Your task to perform on an android device: Search for seafood restaurants on Google Maps Image 0: 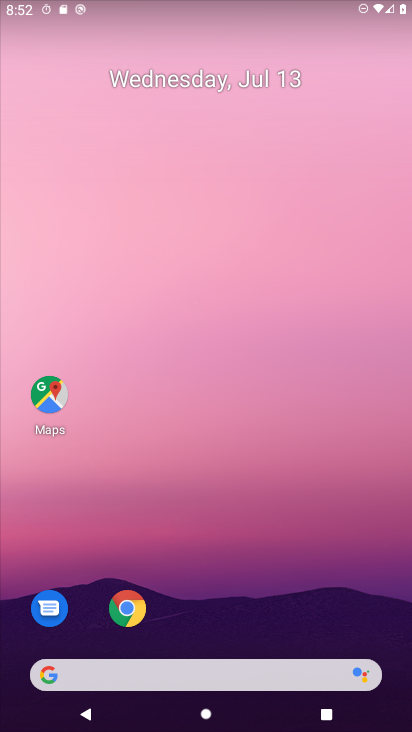
Step 0: drag from (256, 369) to (258, 307)
Your task to perform on an android device: Search for seafood restaurants on Google Maps Image 1: 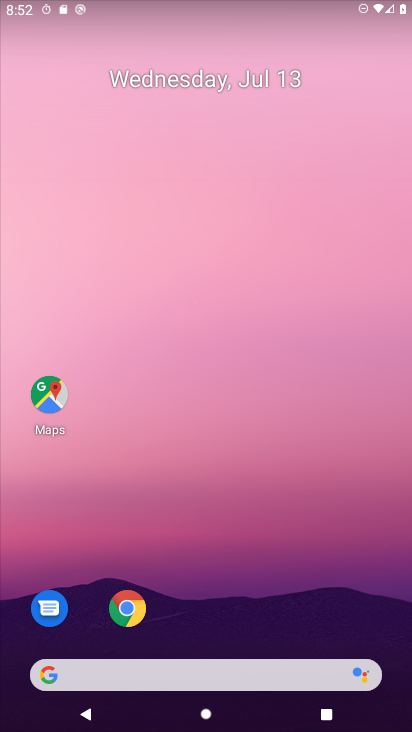
Step 1: drag from (263, 643) to (199, 136)
Your task to perform on an android device: Search for seafood restaurants on Google Maps Image 2: 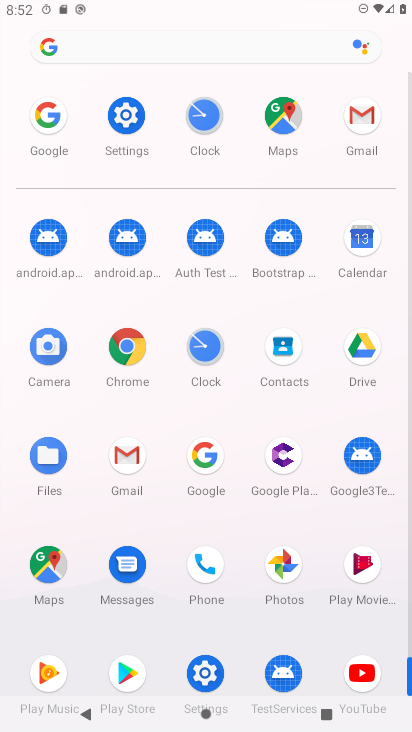
Step 2: drag from (266, 660) to (255, 210)
Your task to perform on an android device: Search for seafood restaurants on Google Maps Image 3: 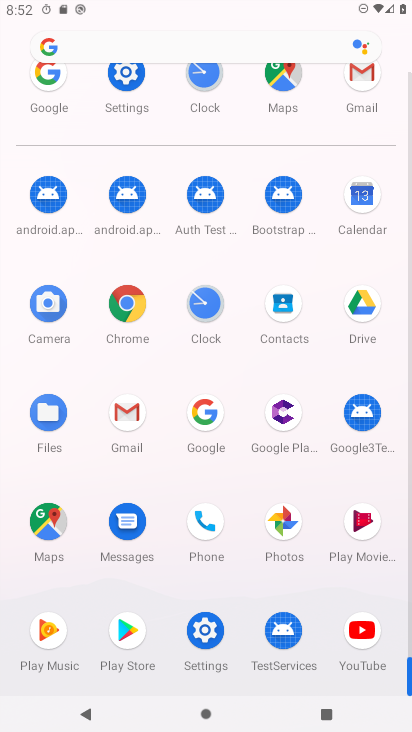
Step 3: click (55, 520)
Your task to perform on an android device: Search for seafood restaurants on Google Maps Image 4: 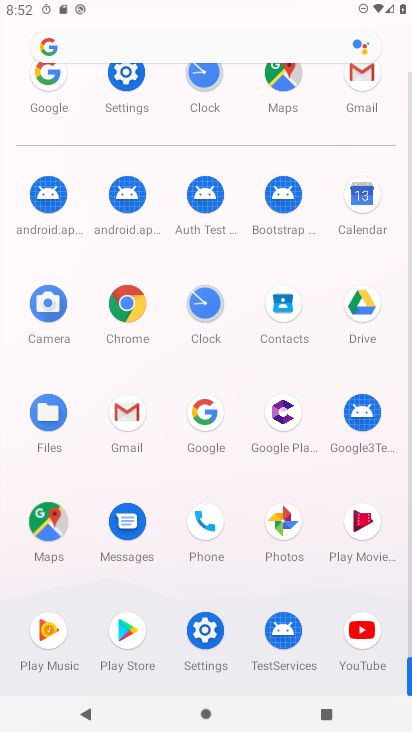
Step 4: click (55, 521)
Your task to perform on an android device: Search for seafood restaurants on Google Maps Image 5: 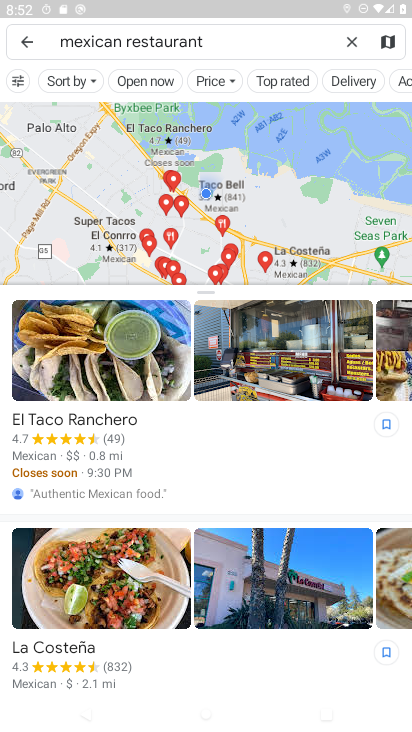
Step 5: click (352, 40)
Your task to perform on an android device: Search for seafood restaurants on Google Maps Image 6: 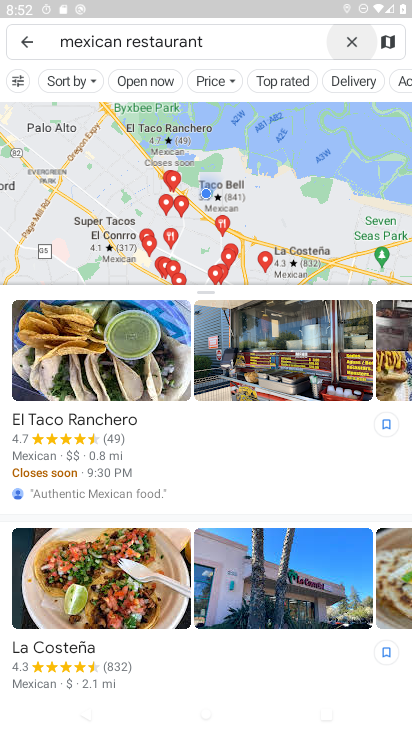
Step 6: click (353, 40)
Your task to perform on an android device: Search for seafood restaurants on Google Maps Image 7: 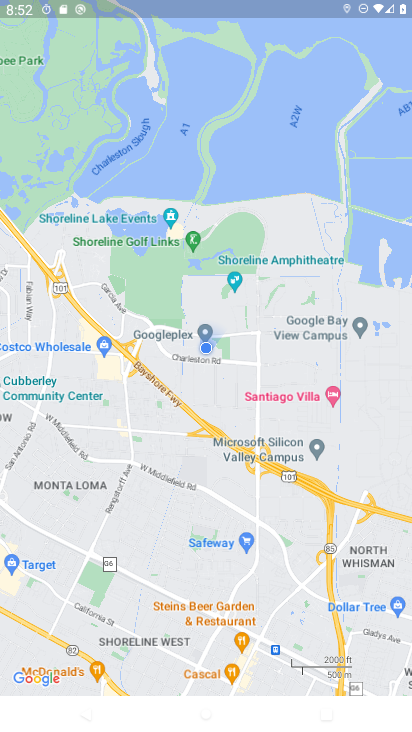
Step 7: click (87, 32)
Your task to perform on an android device: Search for seafood restaurants on Google Maps Image 8: 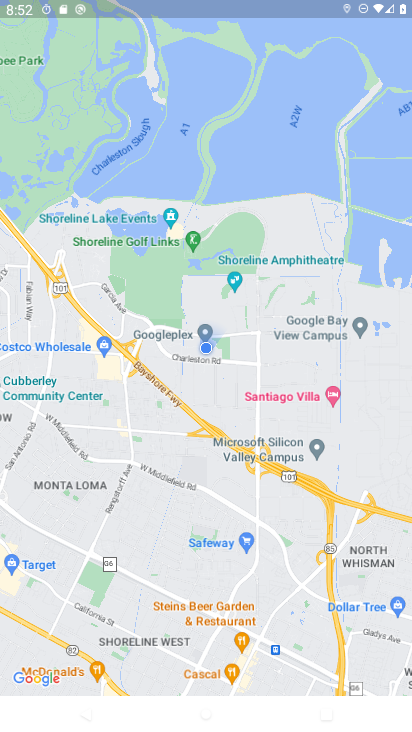
Step 8: drag from (170, 131) to (151, 427)
Your task to perform on an android device: Search for seafood restaurants on Google Maps Image 9: 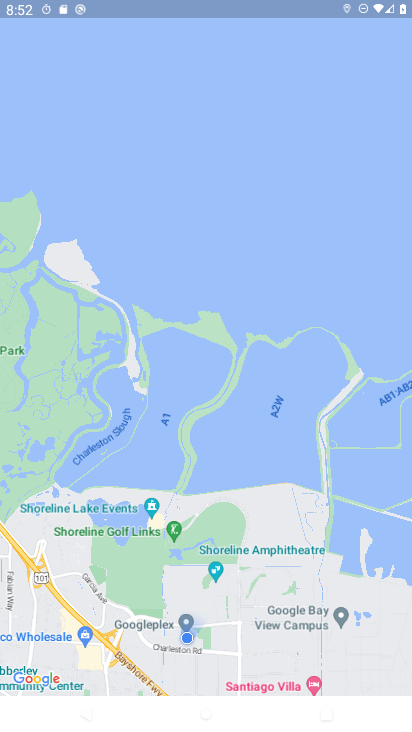
Step 9: drag from (108, 114) to (112, 344)
Your task to perform on an android device: Search for seafood restaurants on Google Maps Image 10: 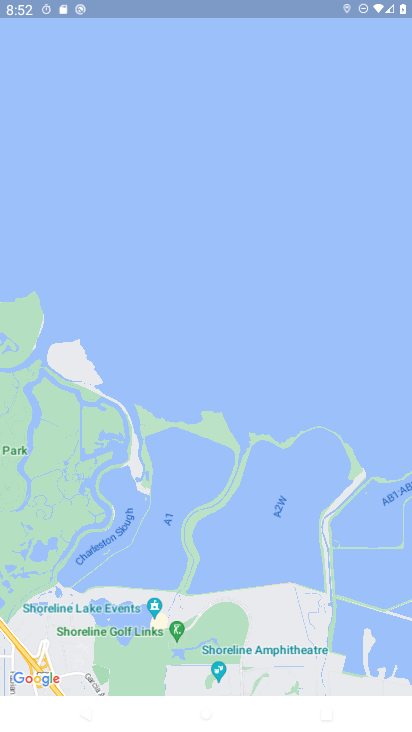
Step 10: drag from (115, 81) to (115, 487)
Your task to perform on an android device: Search for seafood restaurants on Google Maps Image 11: 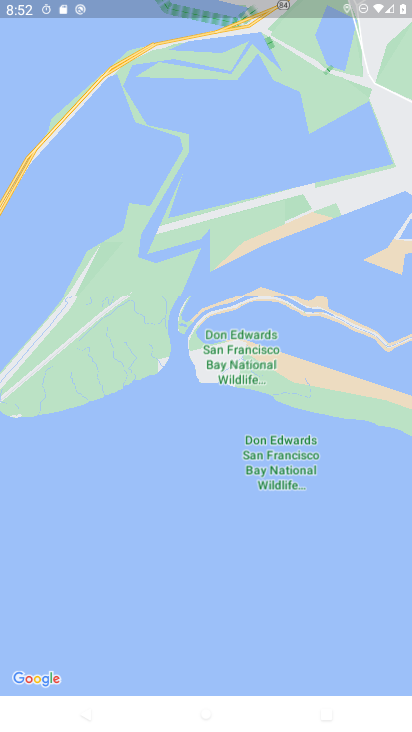
Step 11: drag from (157, 132) to (110, 461)
Your task to perform on an android device: Search for seafood restaurants on Google Maps Image 12: 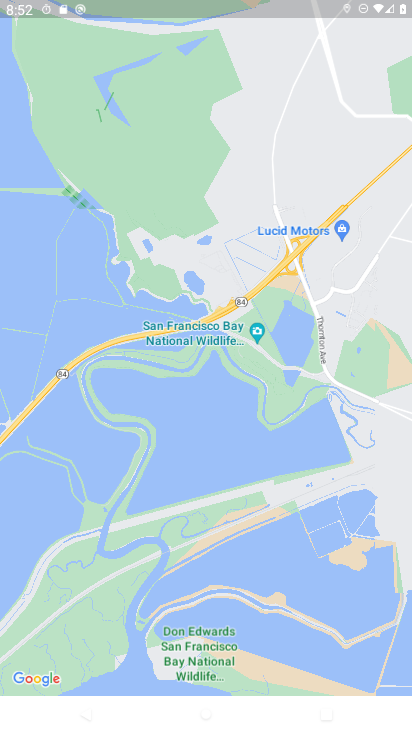
Step 12: drag from (112, 69) to (131, 514)
Your task to perform on an android device: Search for seafood restaurants on Google Maps Image 13: 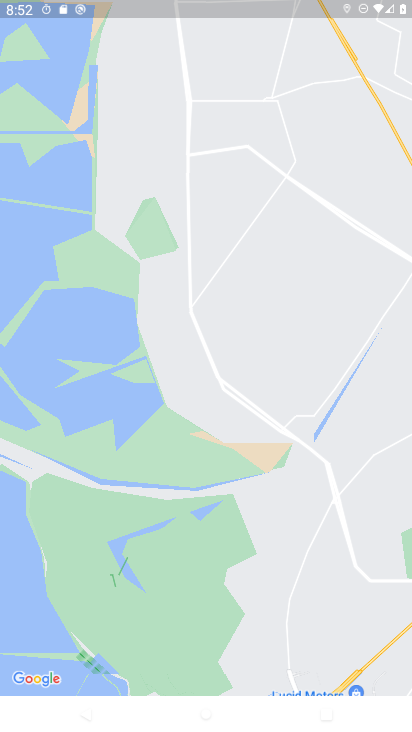
Step 13: drag from (115, 85) to (123, 565)
Your task to perform on an android device: Search for seafood restaurants on Google Maps Image 14: 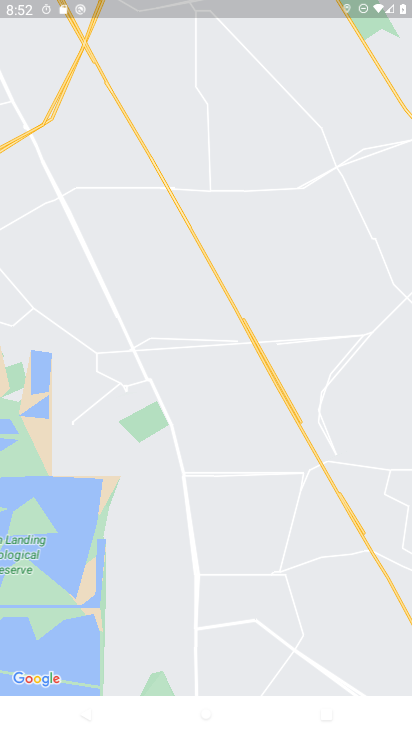
Step 14: drag from (192, 138) to (206, 604)
Your task to perform on an android device: Search for seafood restaurants on Google Maps Image 15: 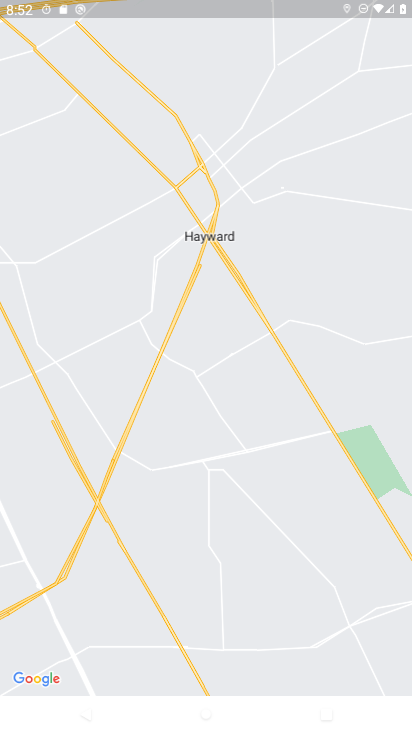
Step 15: drag from (215, 173) to (152, 224)
Your task to perform on an android device: Search for seafood restaurants on Google Maps Image 16: 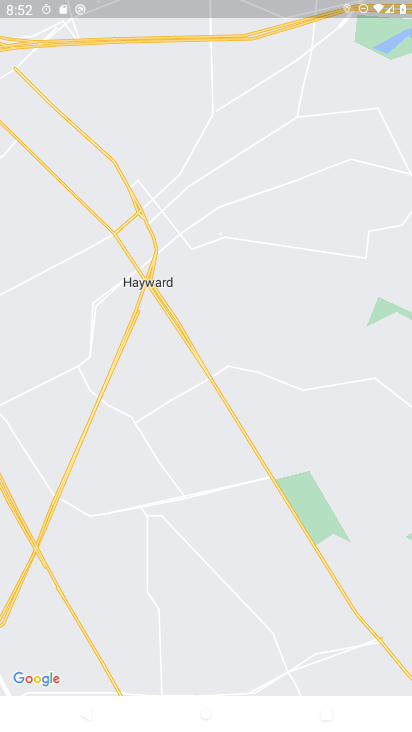
Step 16: drag from (249, 489) to (210, 138)
Your task to perform on an android device: Search for seafood restaurants on Google Maps Image 17: 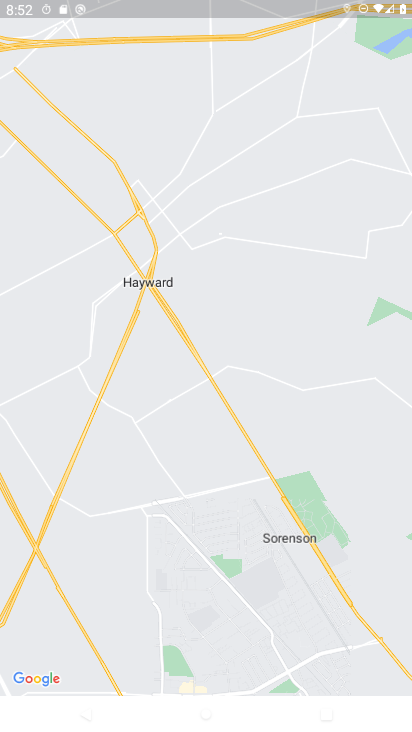
Step 17: drag from (217, 121) to (167, 447)
Your task to perform on an android device: Search for seafood restaurants on Google Maps Image 18: 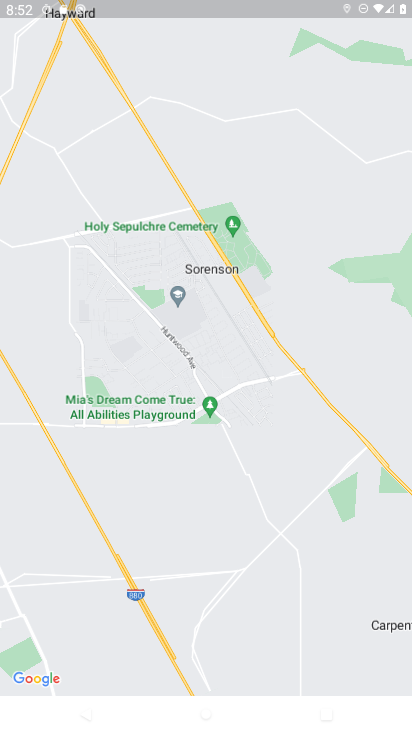
Step 18: drag from (110, 92) to (255, 235)
Your task to perform on an android device: Search for seafood restaurants on Google Maps Image 19: 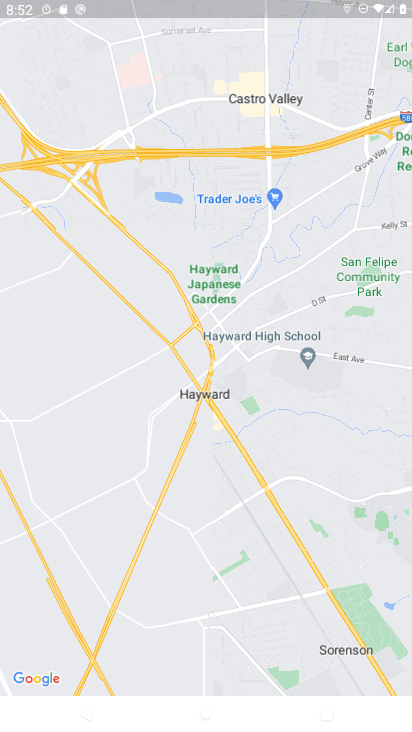
Step 19: click (97, 204)
Your task to perform on an android device: Search for seafood restaurants on Google Maps Image 20: 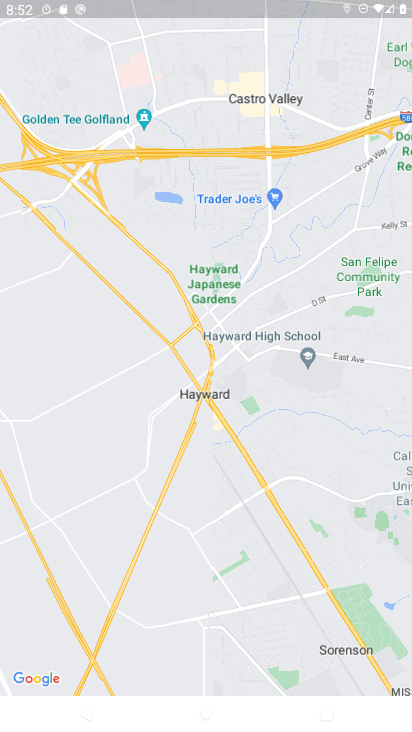
Step 20: click (106, 165)
Your task to perform on an android device: Search for seafood restaurants on Google Maps Image 21: 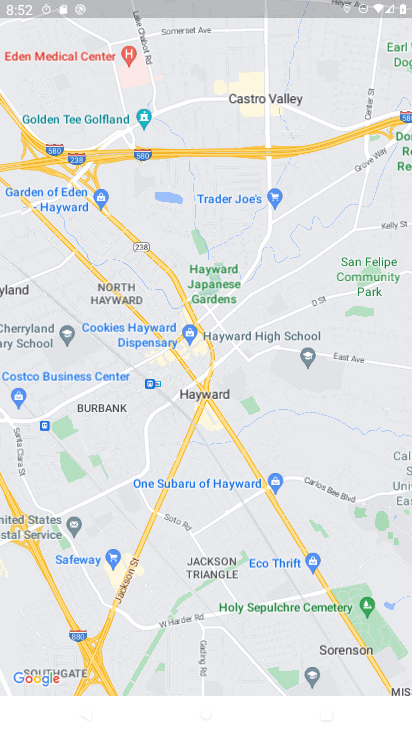
Step 21: click (110, 57)
Your task to perform on an android device: Search for seafood restaurants on Google Maps Image 22: 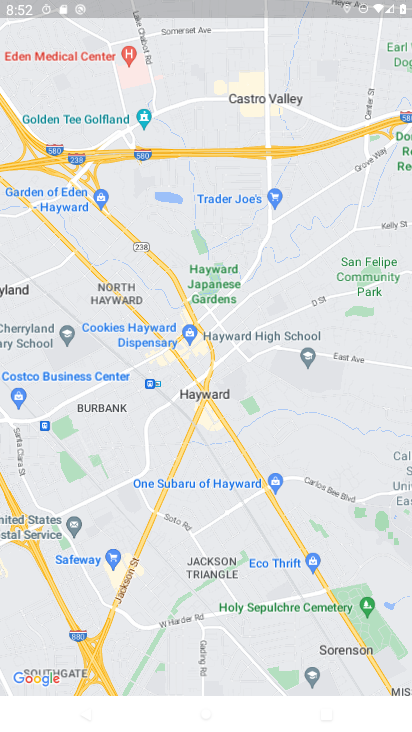
Step 22: click (112, 56)
Your task to perform on an android device: Search for seafood restaurants on Google Maps Image 23: 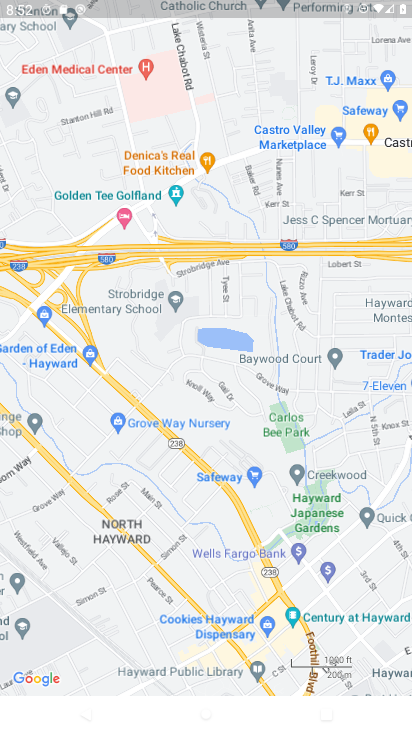
Step 23: click (94, 89)
Your task to perform on an android device: Search for seafood restaurants on Google Maps Image 24: 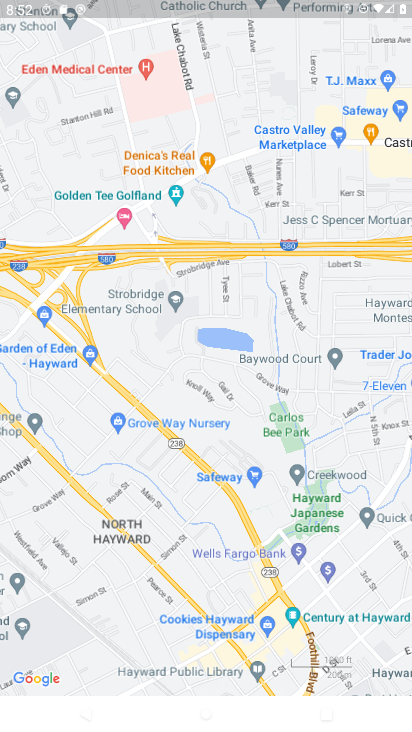
Step 24: click (101, 86)
Your task to perform on an android device: Search for seafood restaurants on Google Maps Image 25: 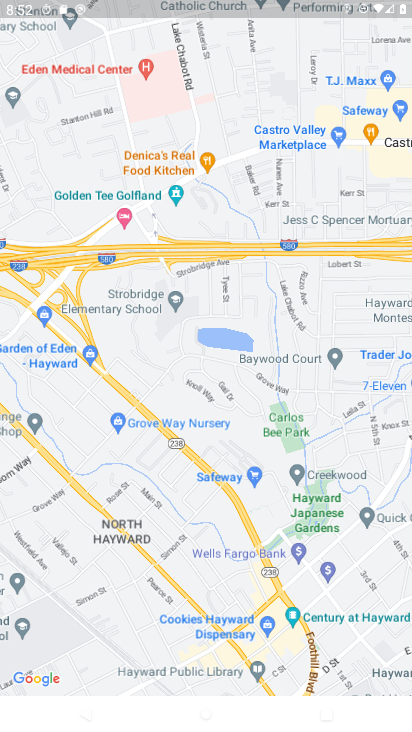
Step 25: click (124, 60)
Your task to perform on an android device: Search for seafood restaurants on Google Maps Image 26: 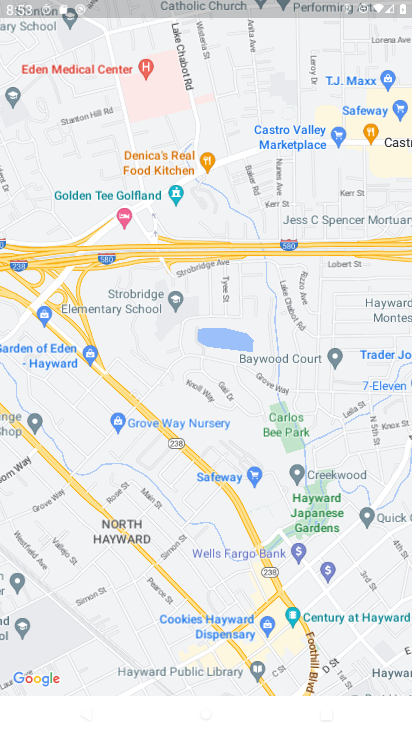
Step 26: drag from (115, 32) to (136, 59)
Your task to perform on an android device: Search for seafood restaurants on Google Maps Image 27: 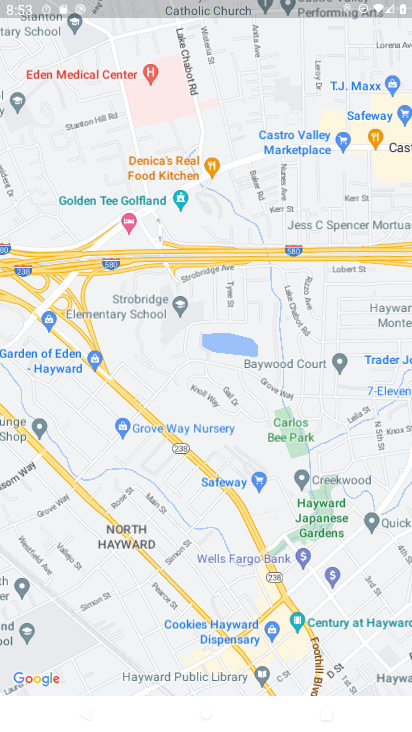
Step 27: click (138, 61)
Your task to perform on an android device: Search for seafood restaurants on Google Maps Image 28: 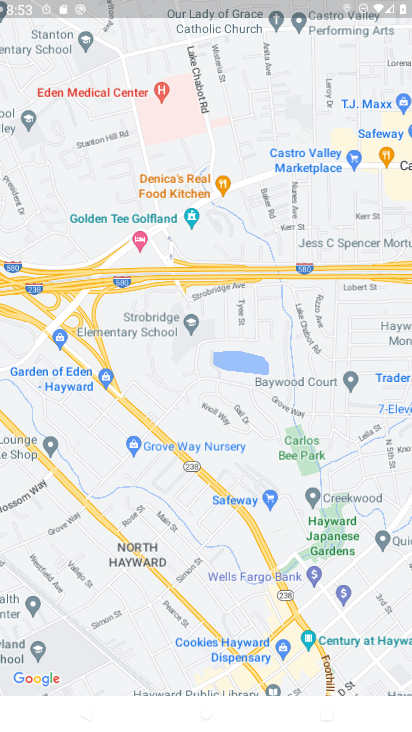
Step 28: click (137, 32)
Your task to perform on an android device: Search for seafood restaurants on Google Maps Image 29: 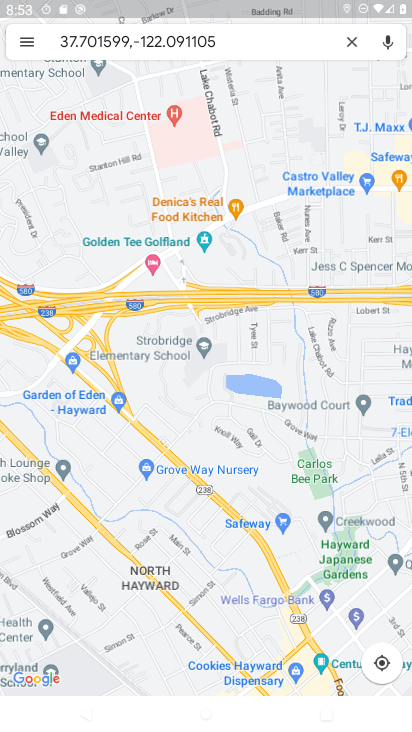
Step 29: click (154, 36)
Your task to perform on an android device: Search for seafood restaurants on Google Maps Image 30: 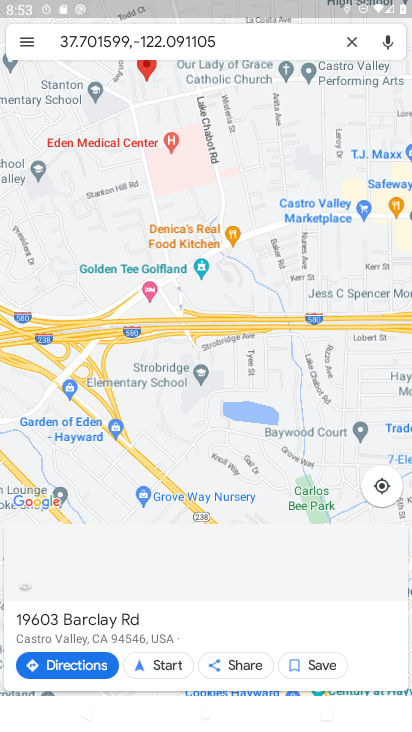
Step 30: click (358, 41)
Your task to perform on an android device: Search for seafood restaurants on Google Maps Image 31: 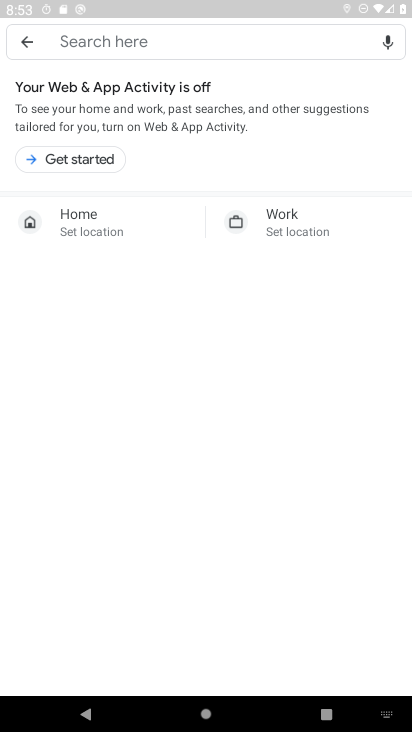
Step 31: type "seafood restaurants"
Your task to perform on an android device: Search for seafood restaurants on Google Maps Image 32: 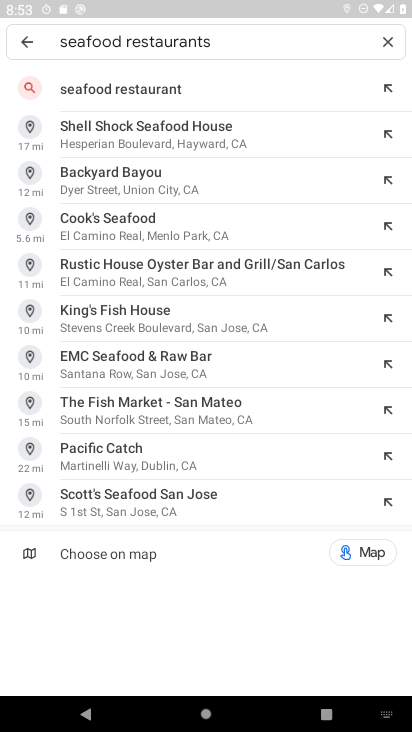
Step 32: click (88, 103)
Your task to perform on an android device: Search for seafood restaurants on Google Maps Image 33: 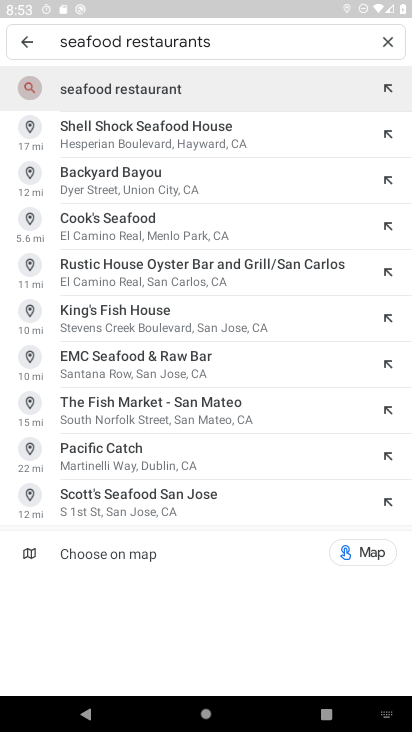
Step 33: click (89, 98)
Your task to perform on an android device: Search for seafood restaurants on Google Maps Image 34: 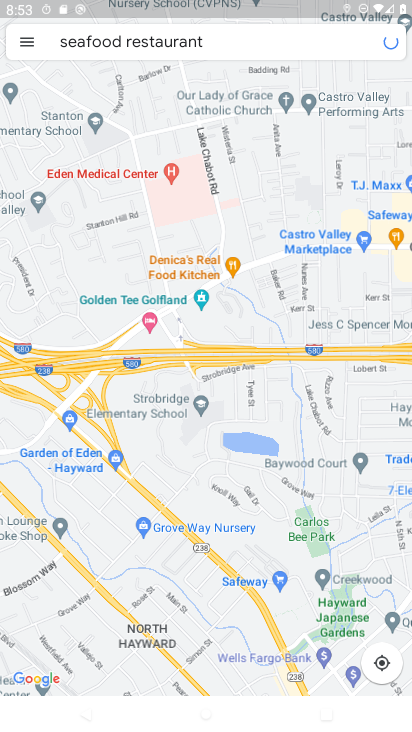
Step 34: task complete